Your task to perform on an android device: toggle notification dots Image 0: 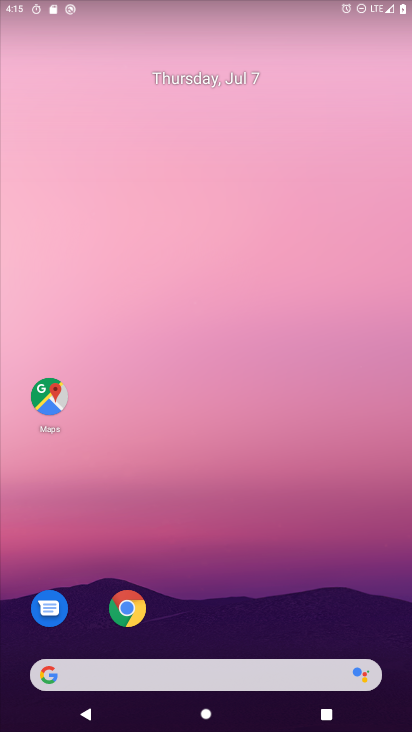
Step 0: drag from (231, 719) to (228, 124)
Your task to perform on an android device: toggle notification dots Image 1: 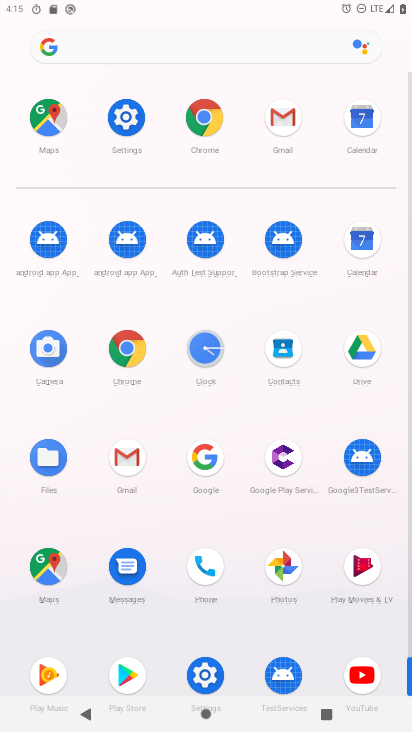
Step 1: click (127, 110)
Your task to perform on an android device: toggle notification dots Image 2: 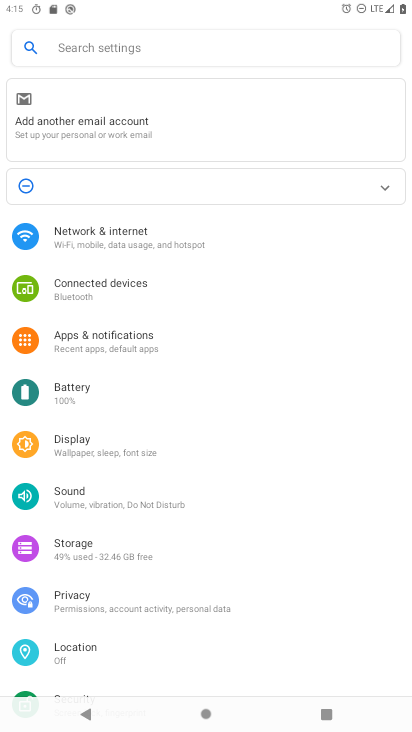
Step 2: click (103, 343)
Your task to perform on an android device: toggle notification dots Image 3: 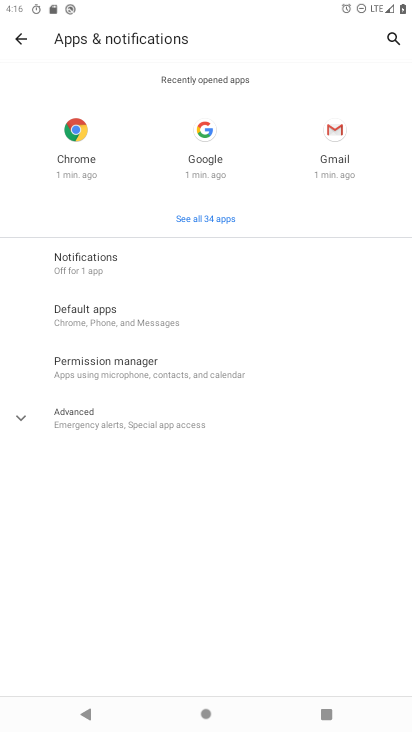
Step 3: click (83, 267)
Your task to perform on an android device: toggle notification dots Image 4: 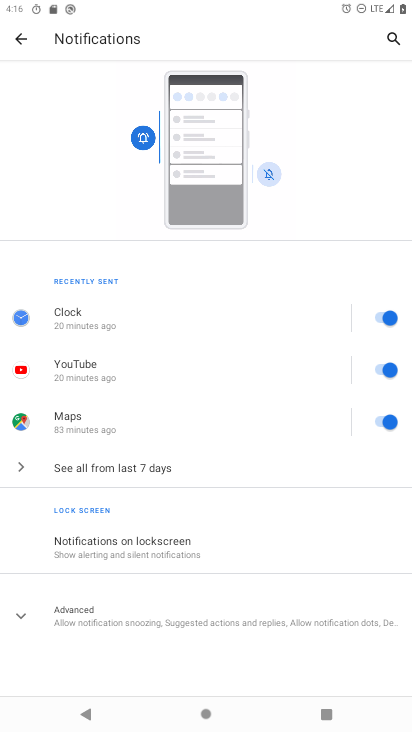
Step 4: click (85, 613)
Your task to perform on an android device: toggle notification dots Image 5: 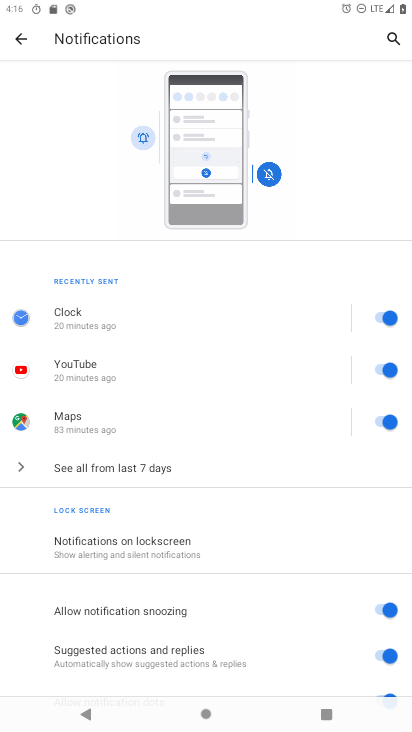
Step 5: drag from (307, 629) to (303, 385)
Your task to perform on an android device: toggle notification dots Image 6: 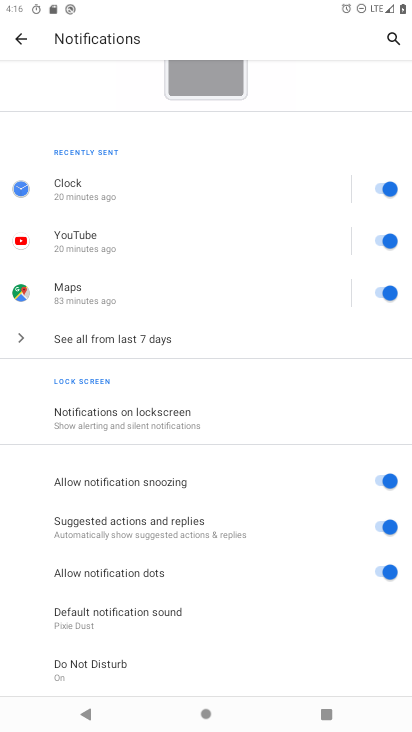
Step 6: click (385, 568)
Your task to perform on an android device: toggle notification dots Image 7: 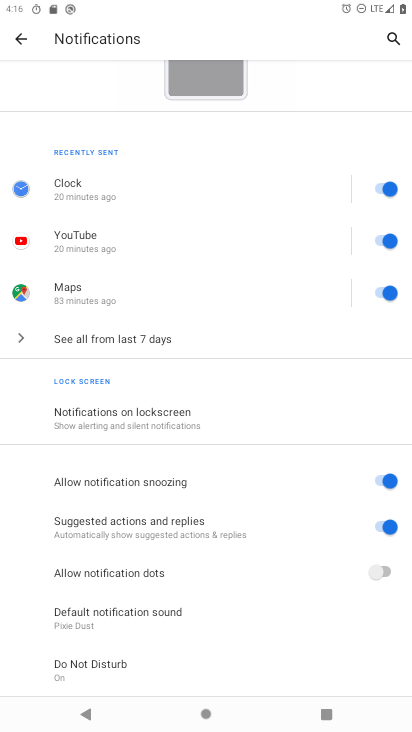
Step 7: task complete